Your task to perform on an android device: clear all cookies in the chrome app Image 0: 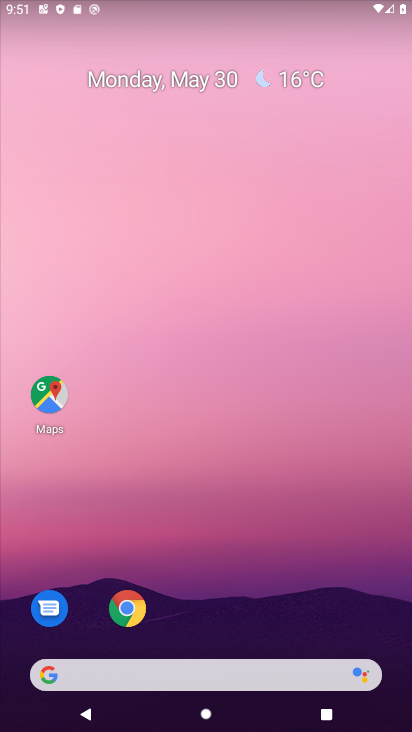
Step 0: click (130, 607)
Your task to perform on an android device: clear all cookies in the chrome app Image 1: 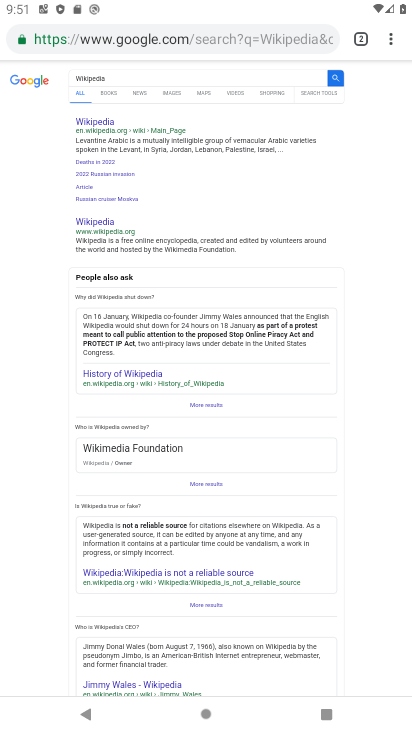
Step 1: click (391, 40)
Your task to perform on an android device: clear all cookies in the chrome app Image 2: 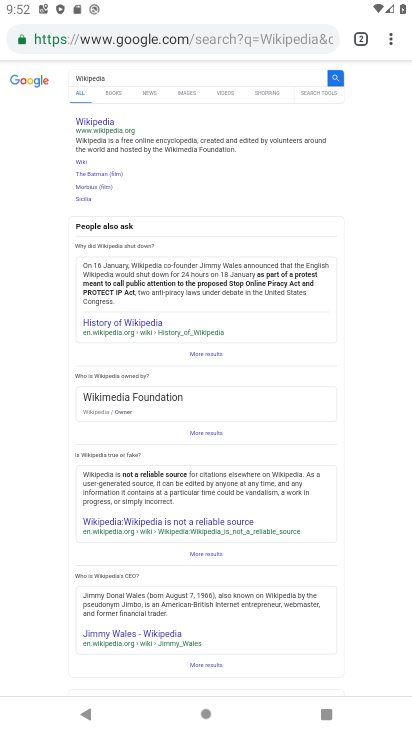
Step 2: click (389, 37)
Your task to perform on an android device: clear all cookies in the chrome app Image 3: 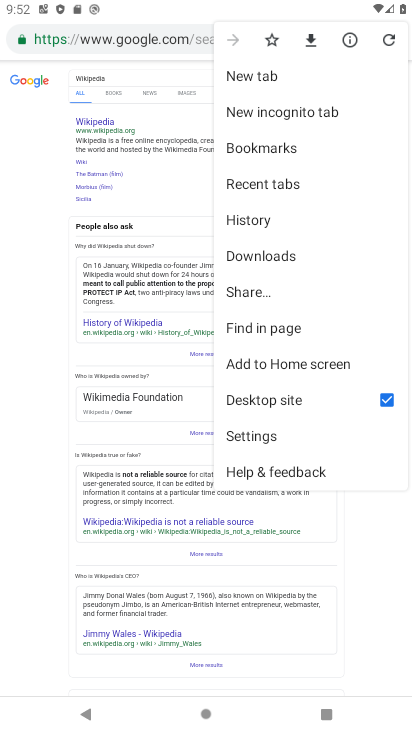
Step 3: click (241, 213)
Your task to perform on an android device: clear all cookies in the chrome app Image 4: 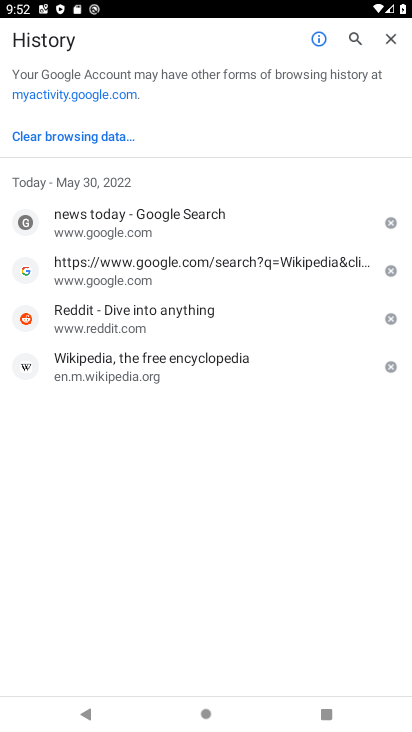
Step 4: click (76, 131)
Your task to perform on an android device: clear all cookies in the chrome app Image 5: 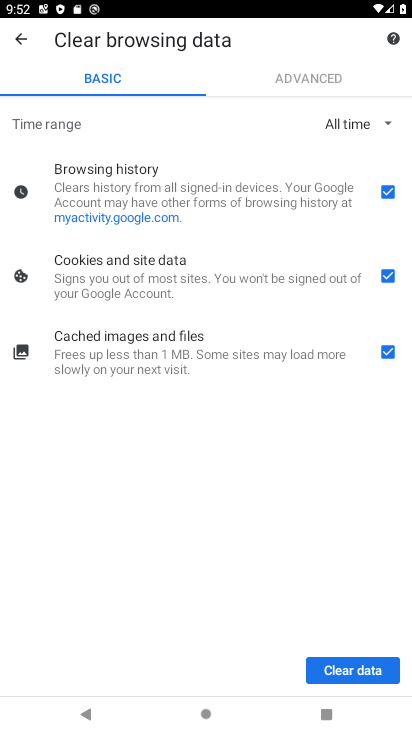
Step 5: click (339, 674)
Your task to perform on an android device: clear all cookies in the chrome app Image 6: 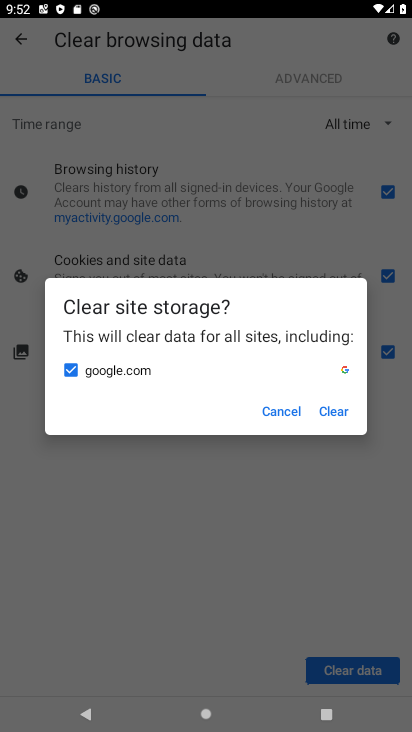
Step 6: click (340, 416)
Your task to perform on an android device: clear all cookies in the chrome app Image 7: 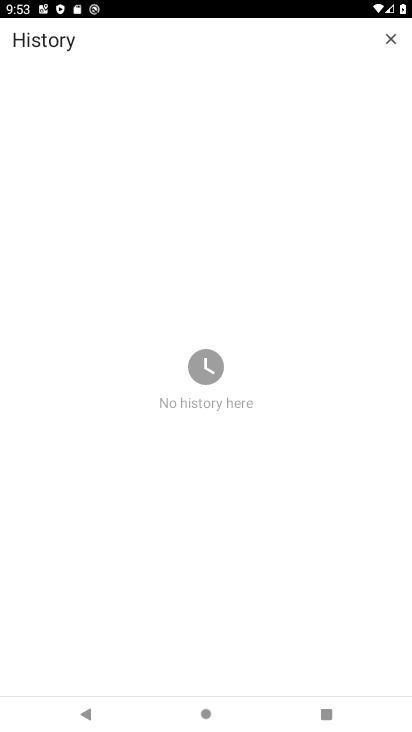
Step 7: task complete